Your task to perform on an android device: move a message to another label in the gmail app Image 0: 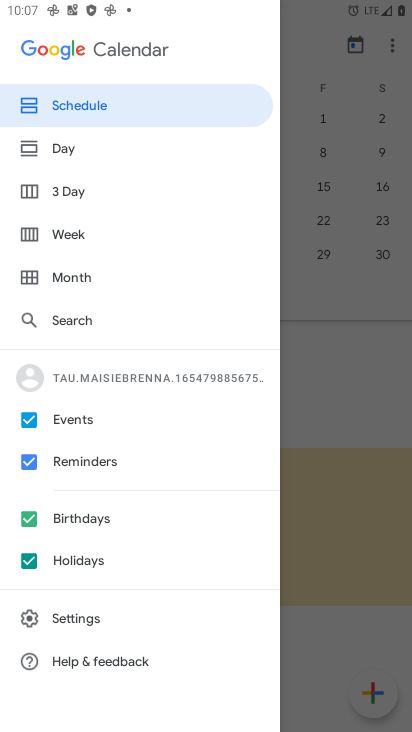
Step 0: press home button
Your task to perform on an android device: move a message to another label in the gmail app Image 1: 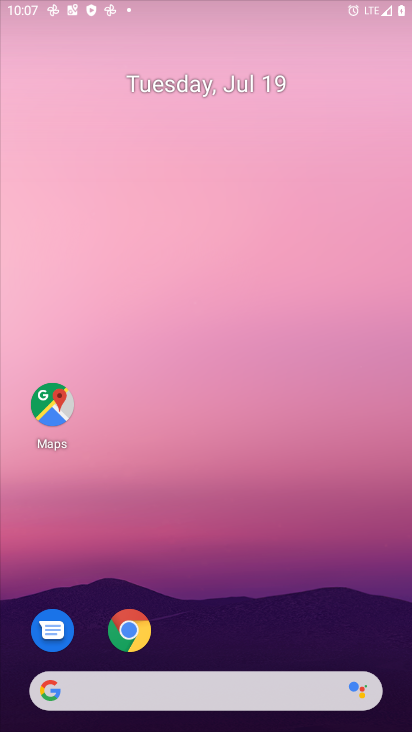
Step 1: drag from (208, 642) to (223, 67)
Your task to perform on an android device: move a message to another label in the gmail app Image 2: 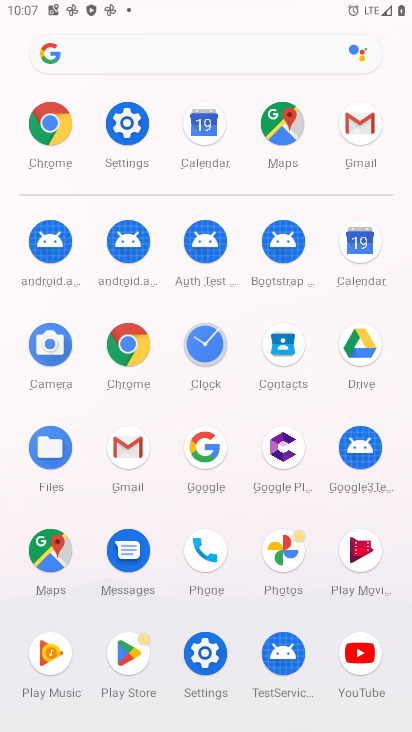
Step 2: click (131, 452)
Your task to perform on an android device: move a message to another label in the gmail app Image 3: 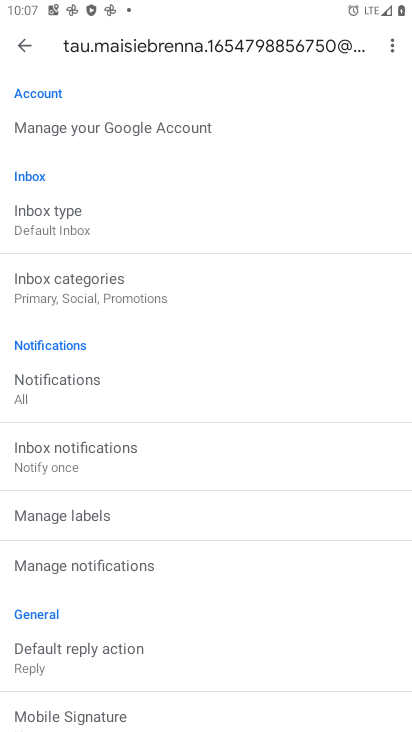
Step 3: press back button
Your task to perform on an android device: move a message to another label in the gmail app Image 4: 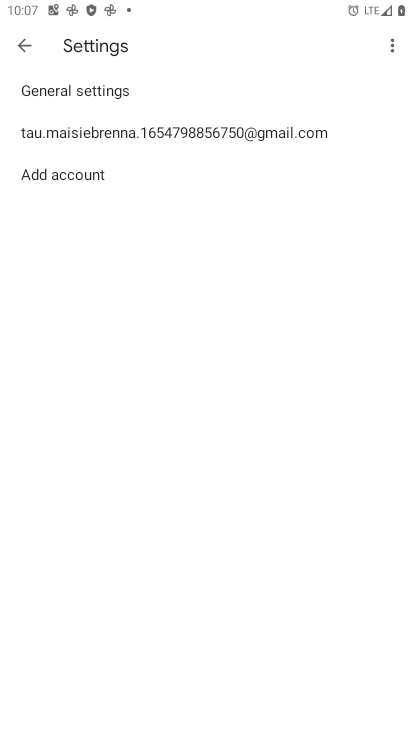
Step 4: press back button
Your task to perform on an android device: move a message to another label in the gmail app Image 5: 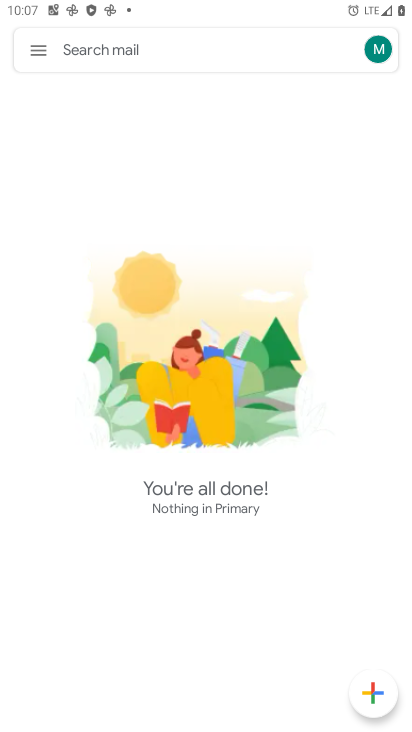
Step 5: click (38, 47)
Your task to perform on an android device: move a message to another label in the gmail app Image 6: 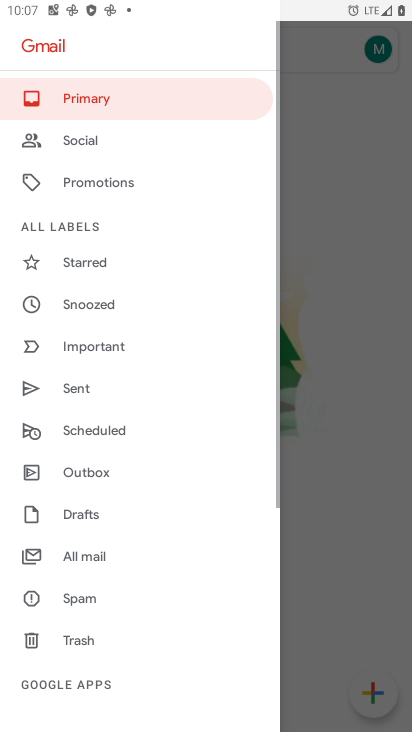
Step 6: click (90, 562)
Your task to perform on an android device: move a message to another label in the gmail app Image 7: 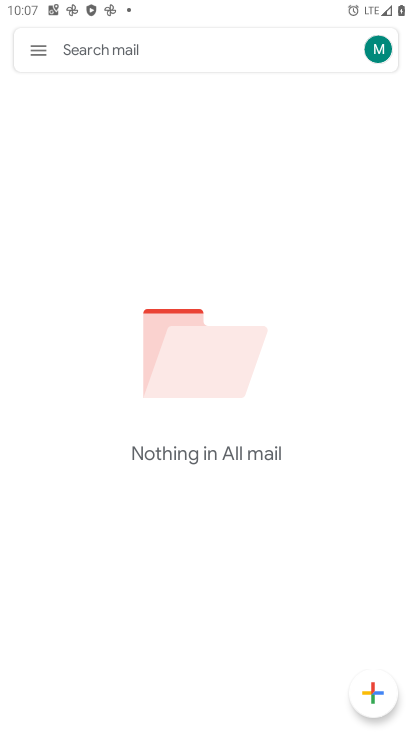
Step 7: task complete